Your task to perform on an android device: Open calendar and show me the second week of next month Image 0: 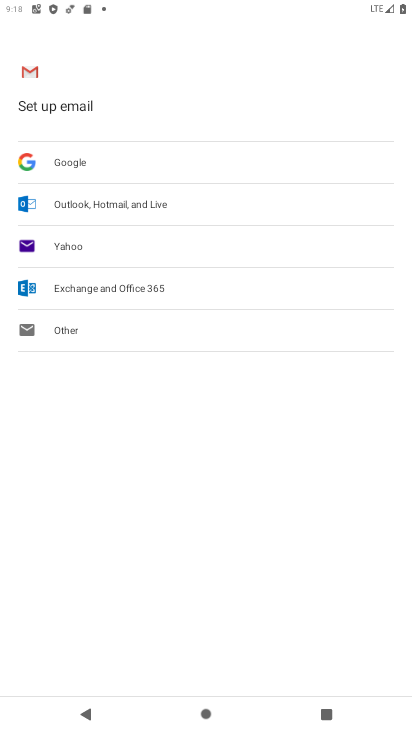
Step 0: press home button
Your task to perform on an android device: Open calendar and show me the second week of next month Image 1: 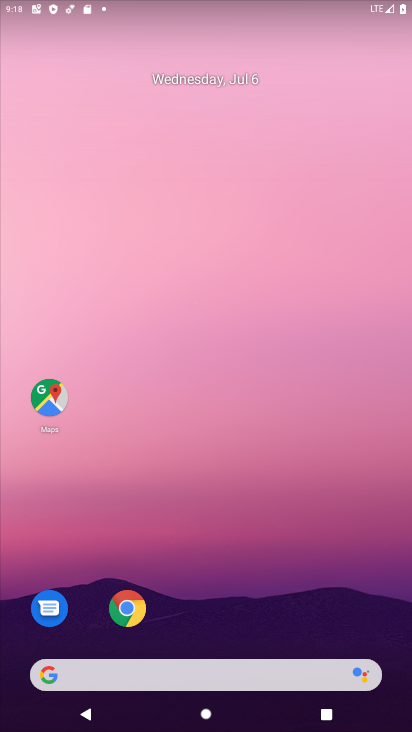
Step 1: drag from (212, 557) to (196, 62)
Your task to perform on an android device: Open calendar and show me the second week of next month Image 2: 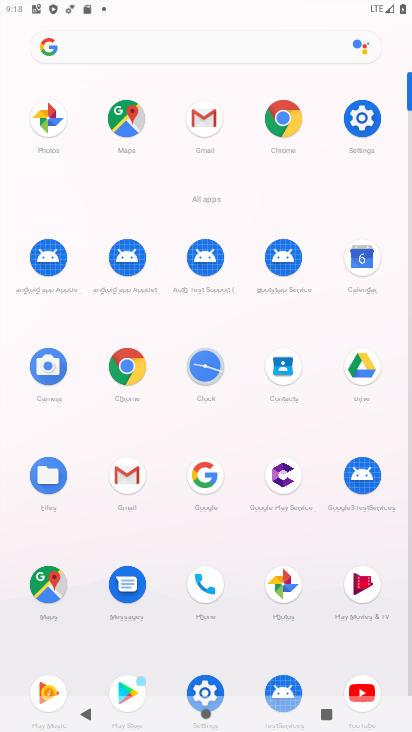
Step 2: click (363, 257)
Your task to perform on an android device: Open calendar and show me the second week of next month Image 3: 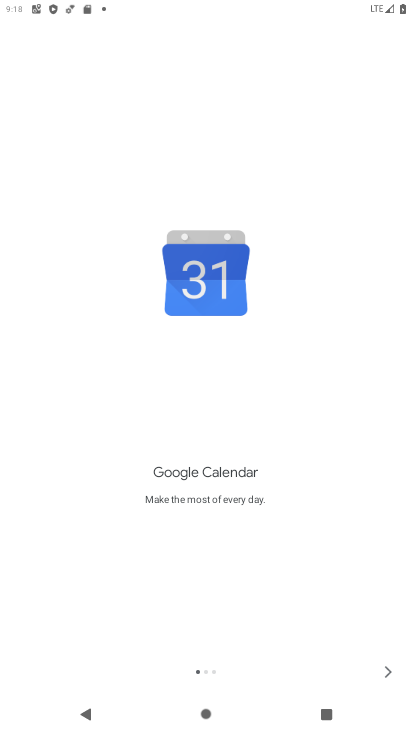
Step 3: click (391, 670)
Your task to perform on an android device: Open calendar and show me the second week of next month Image 4: 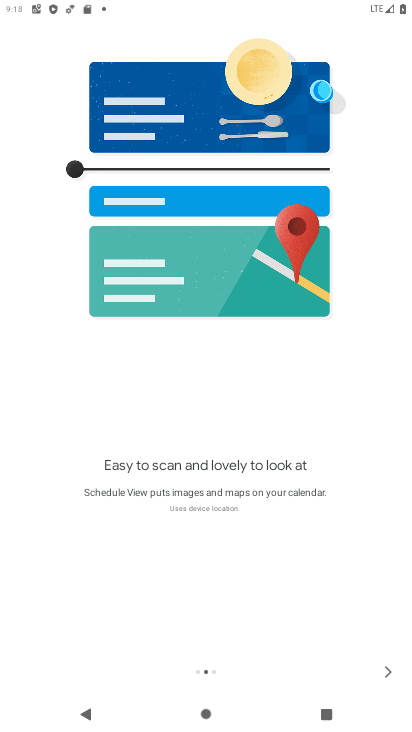
Step 4: click (383, 671)
Your task to perform on an android device: Open calendar and show me the second week of next month Image 5: 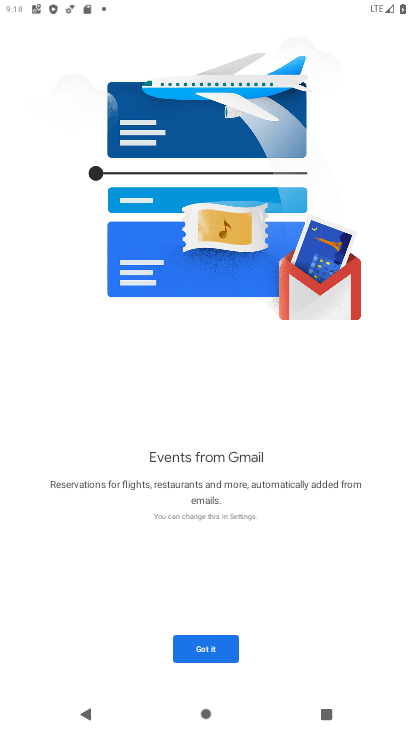
Step 5: click (205, 648)
Your task to perform on an android device: Open calendar and show me the second week of next month Image 6: 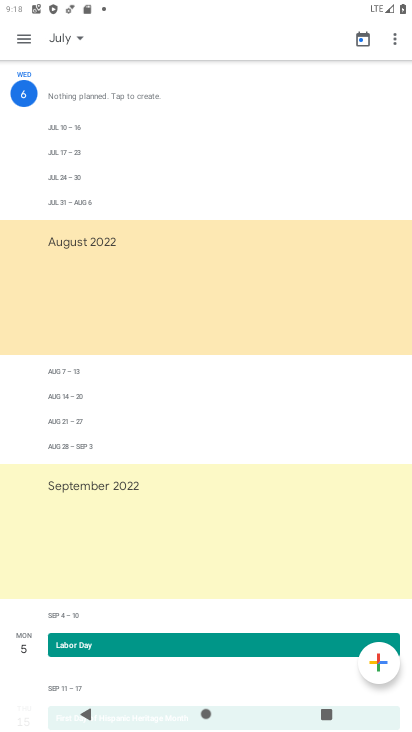
Step 6: click (23, 38)
Your task to perform on an android device: Open calendar and show me the second week of next month Image 7: 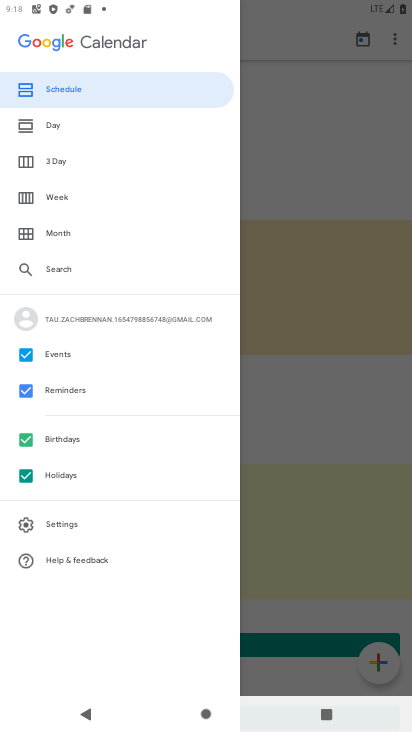
Step 7: click (56, 190)
Your task to perform on an android device: Open calendar and show me the second week of next month Image 8: 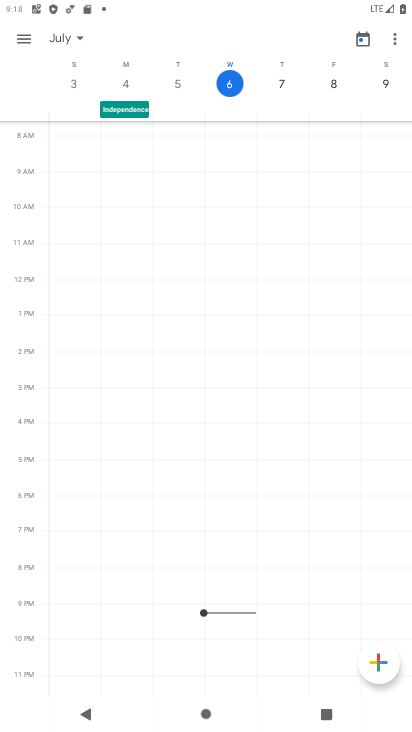
Step 8: click (82, 30)
Your task to perform on an android device: Open calendar and show me the second week of next month Image 9: 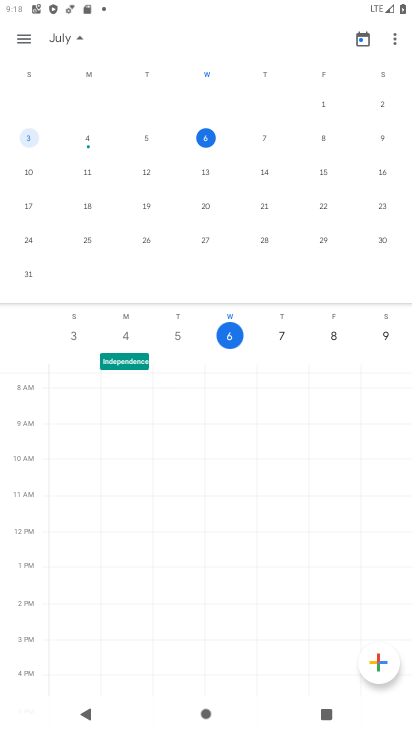
Step 9: drag from (341, 208) to (0, 166)
Your task to perform on an android device: Open calendar and show me the second week of next month Image 10: 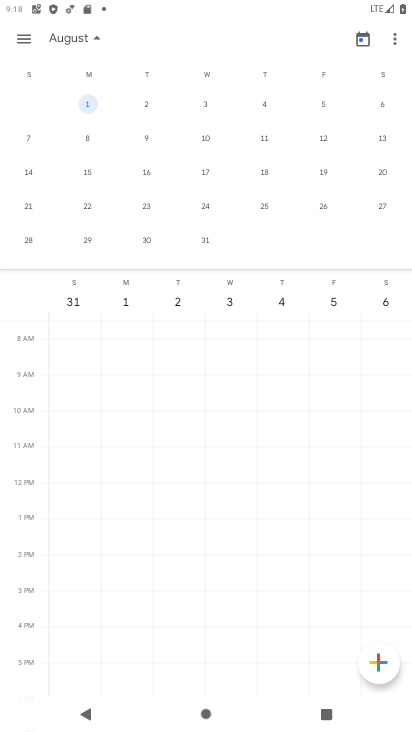
Step 10: click (145, 136)
Your task to perform on an android device: Open calendar and show me the second week of next month Image 11: 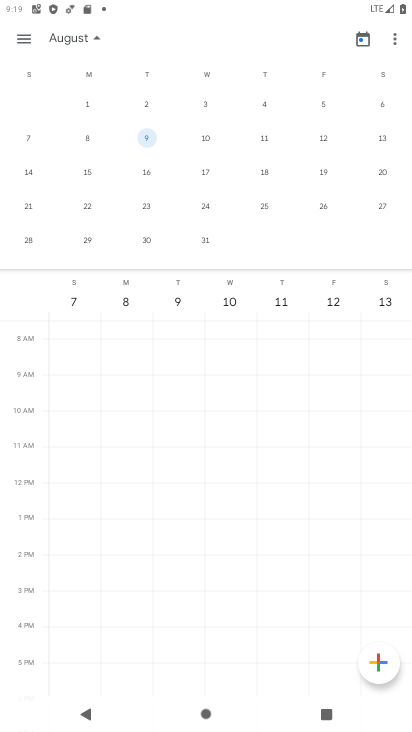
Step 11: task complete